Your task to perform on an android device: toggle notifications settings in the gmail app Image 0: 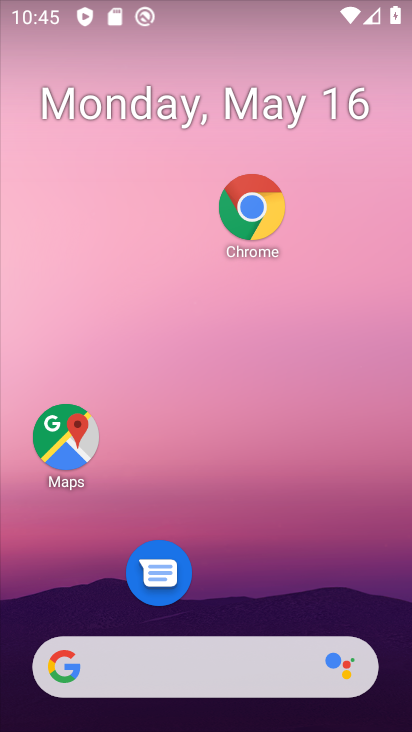
Step 0: drag from (384, 679) to (302, 67)
Your task to perform on an android device: toggle notifications settings in the gmail app Image 1: 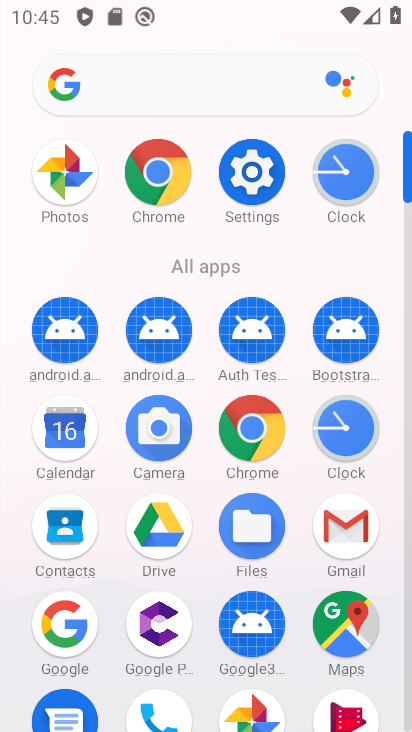
Step 1: click (331, 529)
Your task to perform on an android device: toggle notifications settings in the gmail app Image 2: 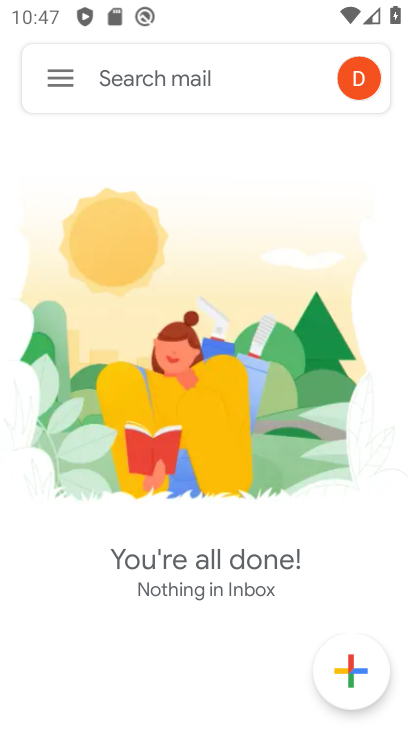
Step 2: click (63, 73)
Your task to perform on an android device: toggle notifications settings in the gmail app Image 3: 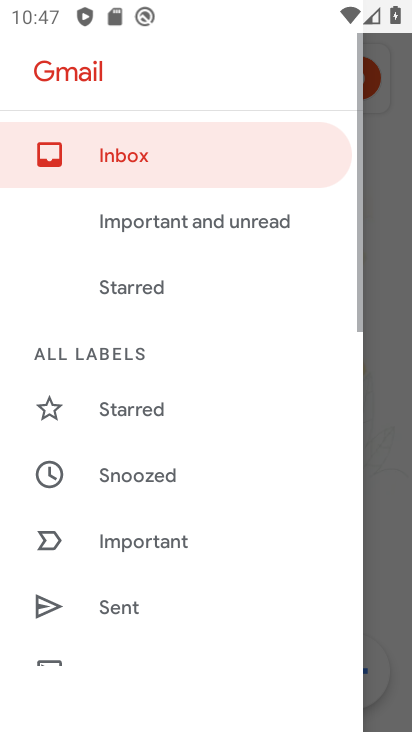
Step 3: drag from (256, 664) to (227, 168)
Your task to perform on an android device: toggle notifications settings in the gmail app Image 4: 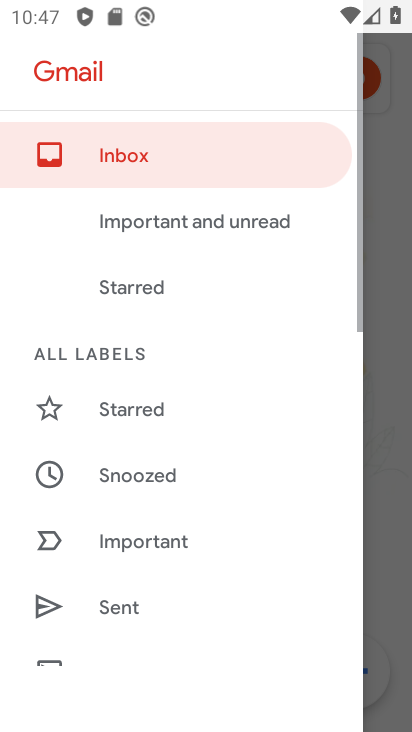
Step 4: drag from (225, 562) to (192, 66)
Your task to perform on an android device: toggle notifications settings in the gmail app Image 5: 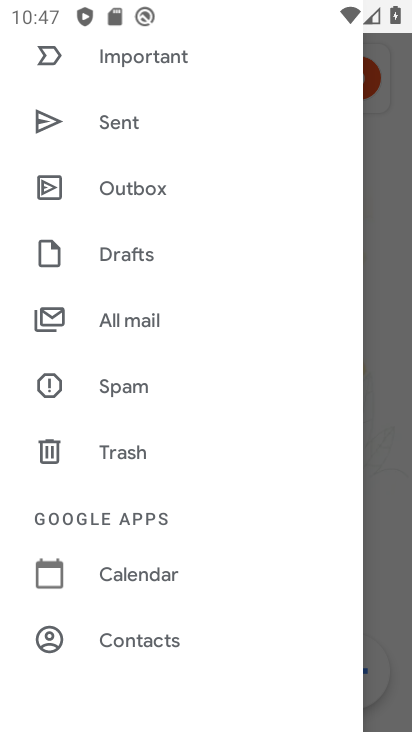
Step 5: drag from (181, 618) to (192, 244)
Your task to perform on an android device: toggle notifications settings in the gmail app Image 6: 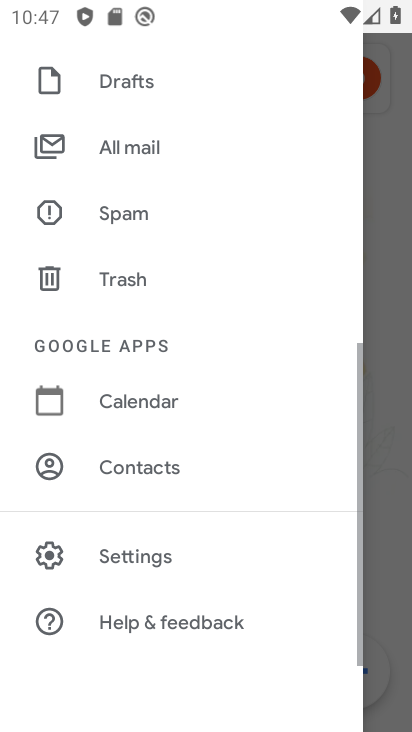
Step 6: click (121, 562)
Your task to perform on an android device: toggle notifications settings in the gmail app Image 7: 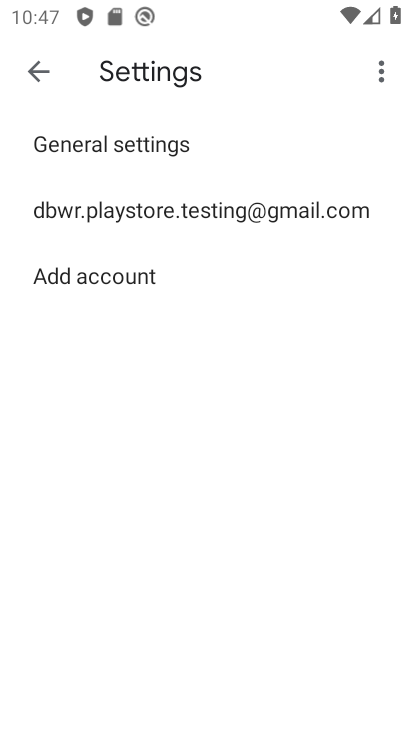
Step 7: click (174, 209)
Your task to perform on an android device: toggle notifications settings in the gmail app Image 8: 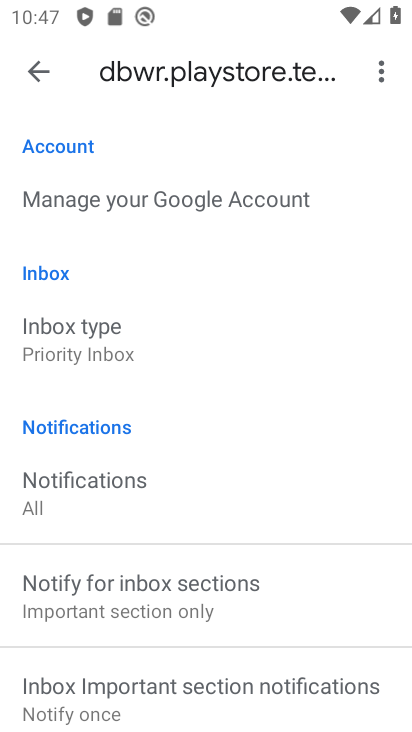
Step 8: drag from (129, 625) to (169, 244)
Your task to perform on an android device: toggle notifications settings in the gmail app Image 9: 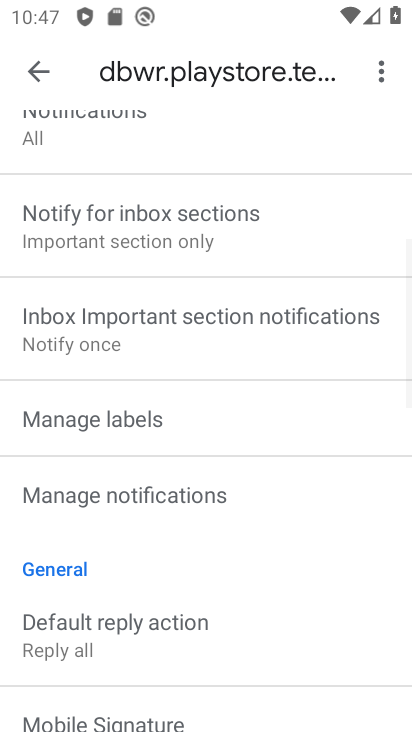
Step 9: click (181, 490)
Your task to perform on an android device: toggle notifications settings in the gmail app Image 10: 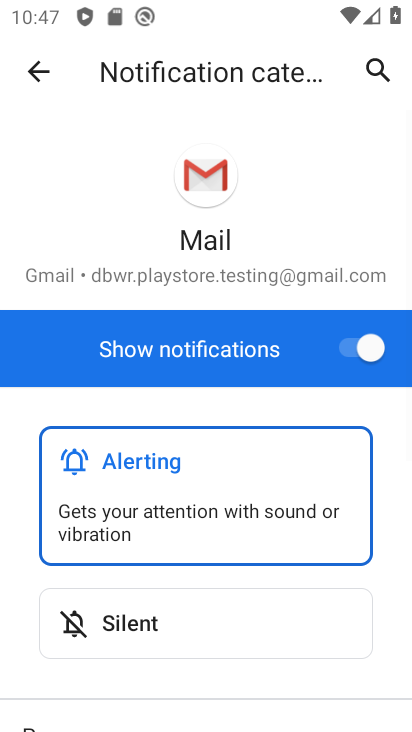
Step 10: click (350, 348)
Your task to perform on an android device: toggle notifications settings in the gmail app Image 11: 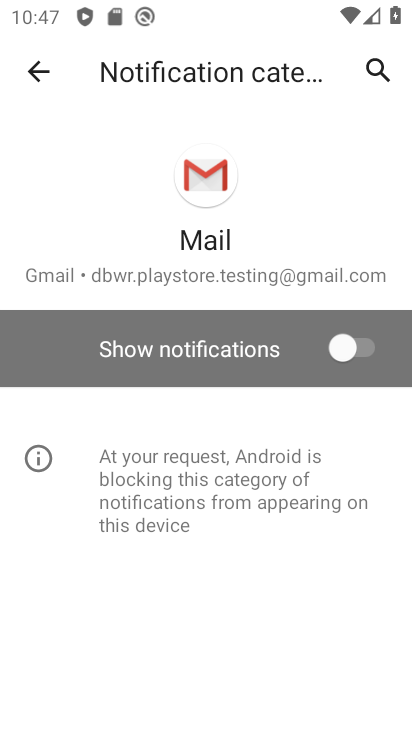
Step 11: task complete